Your task to perform on an android device: See recent photos Image 0: 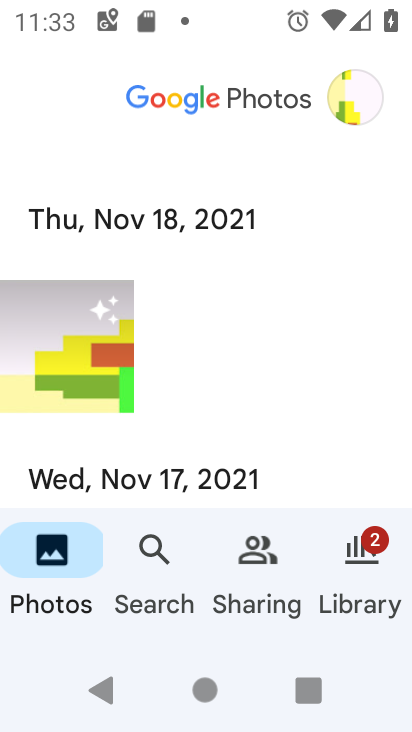
Step 0: drag from (224, 443) to (171, 158)
Your task to perform on an android device: See recent photos Image 1: 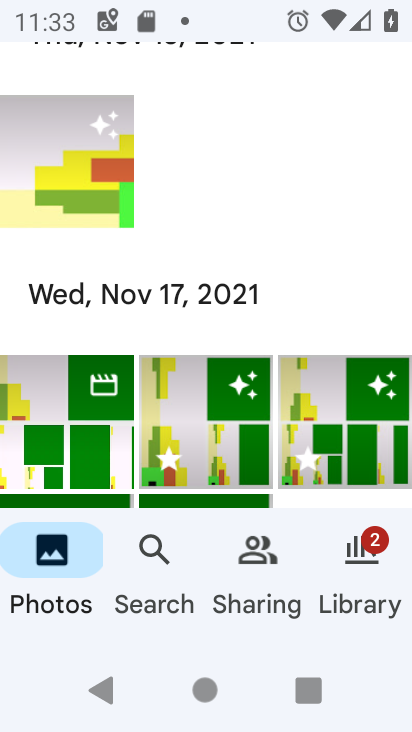
Step 1: press home button
Your task to perform on an android device: See recent photos Image 2: 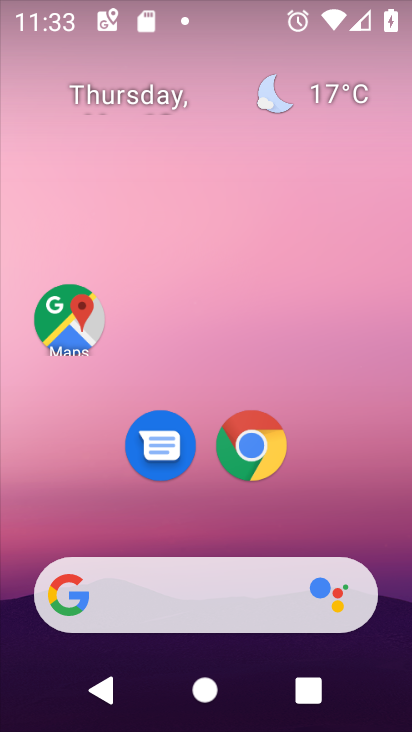
Step 2: drag from (213, 521) to (193, 169)
Your task to perform on an android device: See recent photos Image 3: 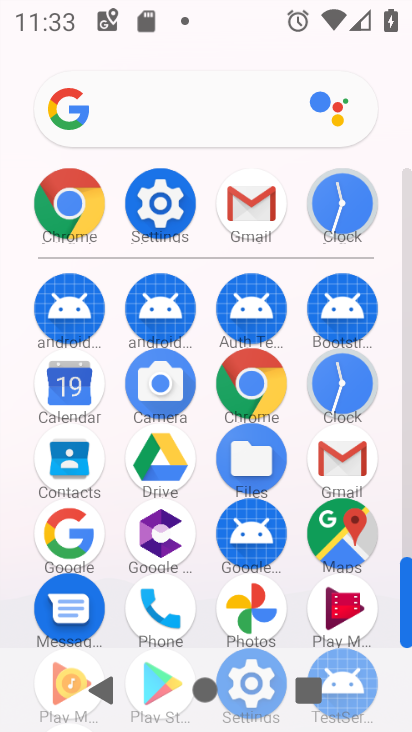
Step 3: click (262, 604)
Your task to perform on an android device: See recent photos Image 4: 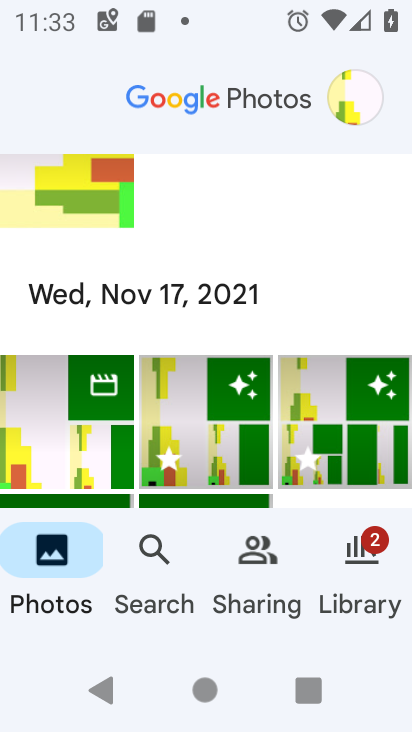
Step 4: task complete